Your task to perform on an android device: turn off wifi Image 0: 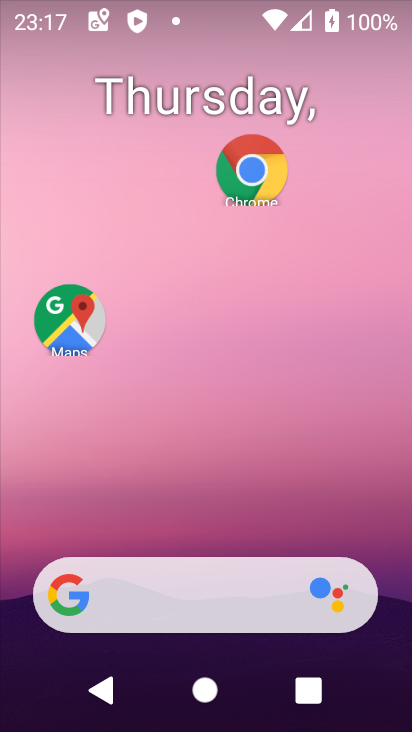
Step 0: drag from (226, 561) to (293, 307)
Your task to perform on an android device: turn off wifi Image 1: 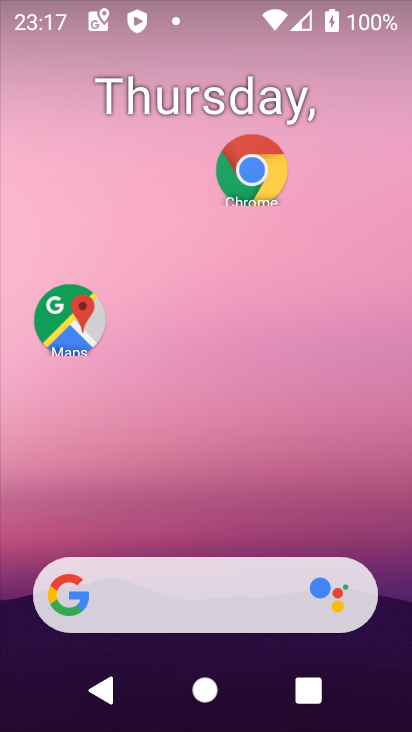
Step 1: drag from (218, 556) to (306, 137)
Your task to perform on an android device: turn off wifi Image 2: 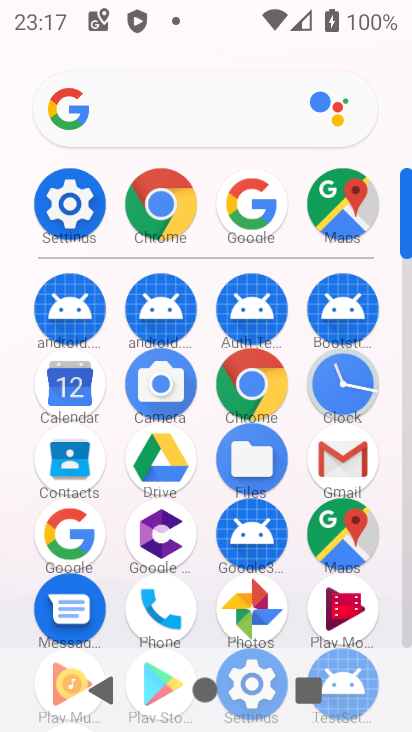
Step 2: click (38, 201)
Your task to perform on an android device: turn off wifi Image 3: 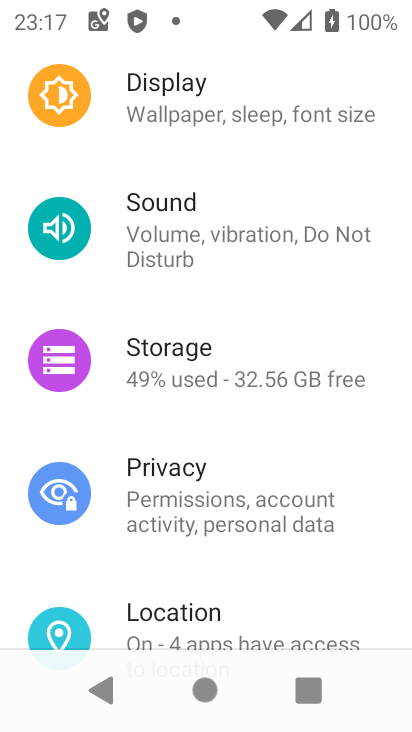
Step 3: drag from (252, 174) to (263, 519)
Your task to perform on an android device: turn off wifi Image 4: 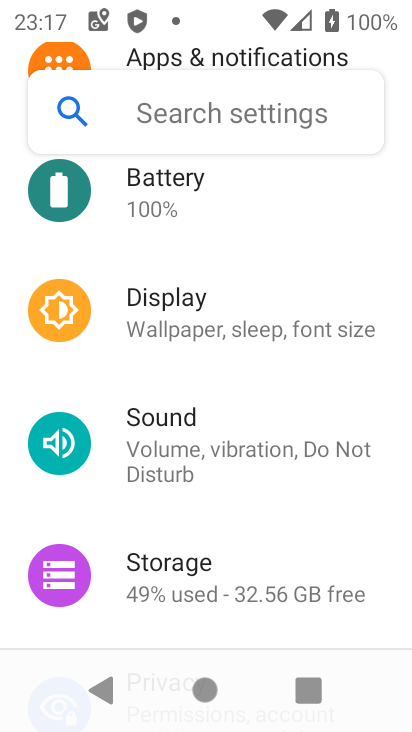
Step 4: drag from (278, 191) to (284, 438)
Your task to perform on an android device: turn off wifi Image 5: 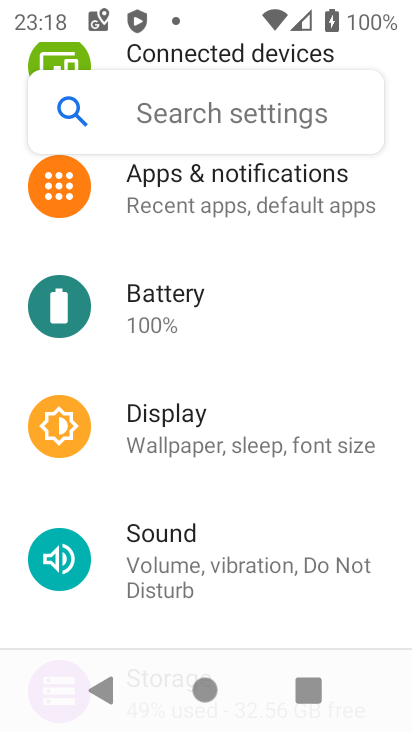
Step 5: drag from (261, 200) to (250, 499)
Your task to perform on an android device: turn off wifi Image 6: 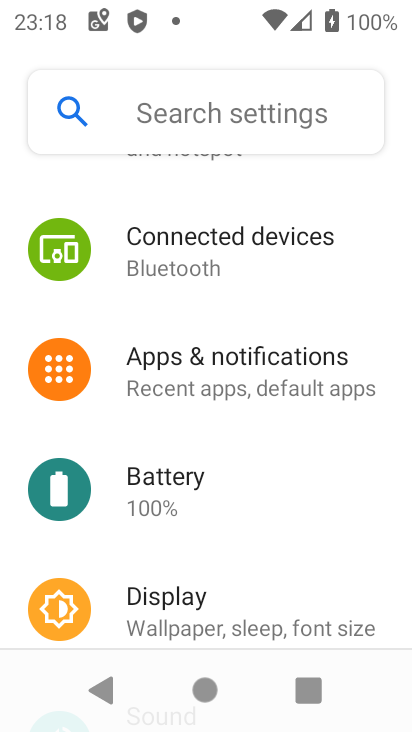
Step 6: click (227, 248)
Your task to perform on an android device: turn off wifi Image 7: 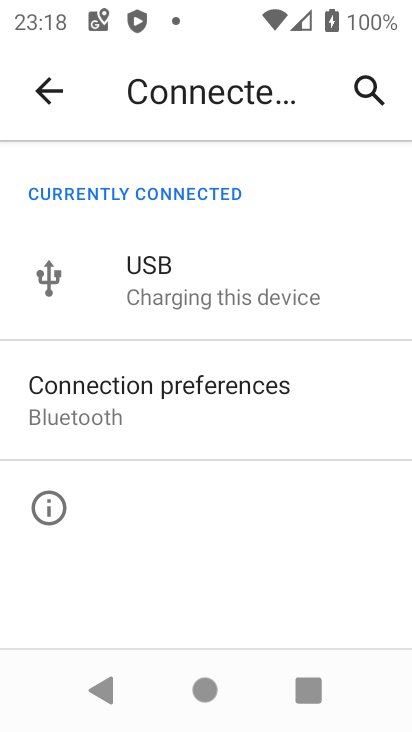
Step 7: click (44, 90)
Your task to perform on an android device: turn off wifi Image 8: 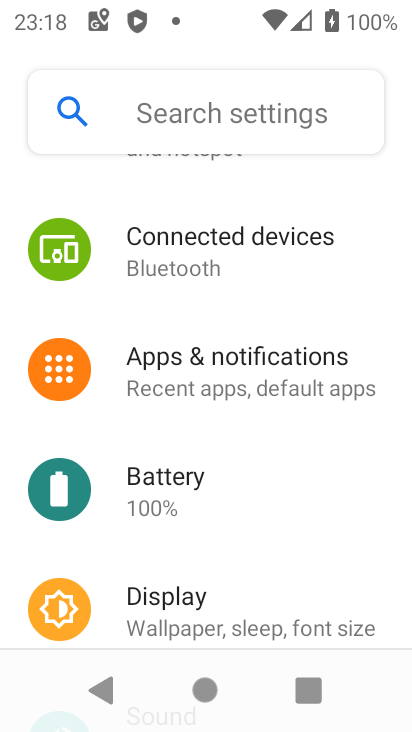
Step 8: drag from (245, 230) to (259, 491)
Your task to perform on an android device: turn off wifi Image 9: 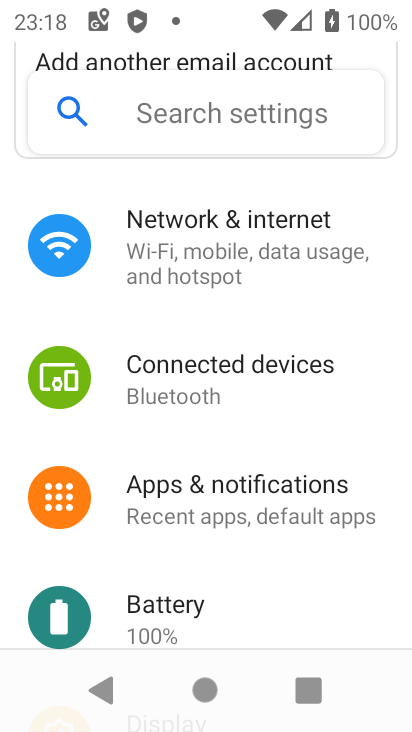
Step 9: click (192, 267)
Your task to perform on an android device: turn off wifi Image 10: 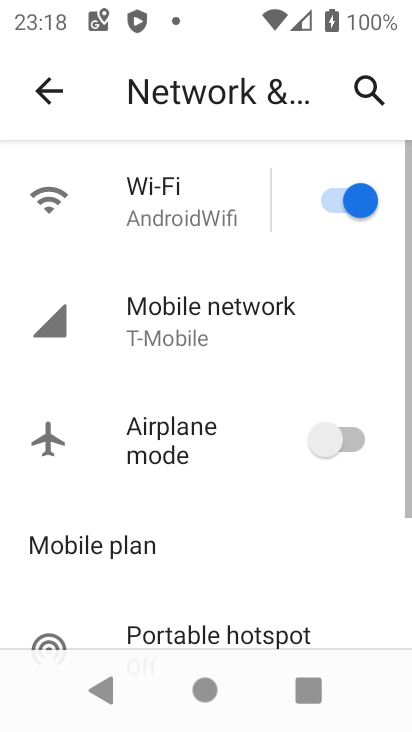
Step 10: click (340, 192)
Your task to perform on an android device: turn off wifi Image 11: 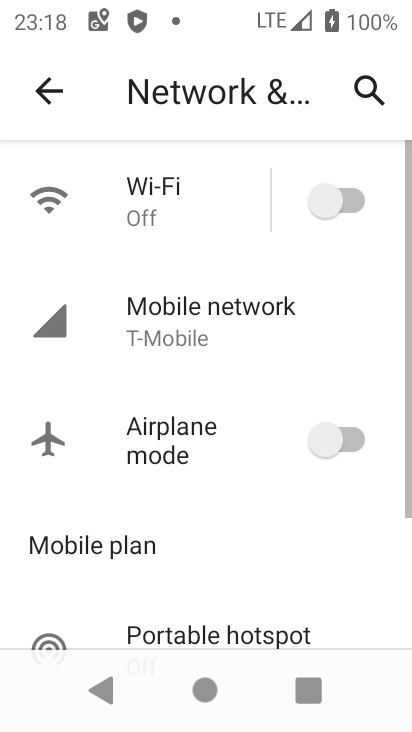
Step 11: task complete